Your task to perform on an android device: Go to network settings Image 0: 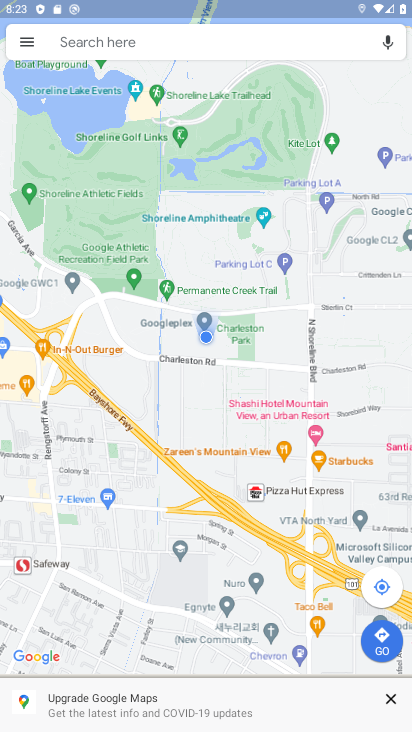
Step 0: press home button
Your task to perform on an android device: Go to network settings Image 1: 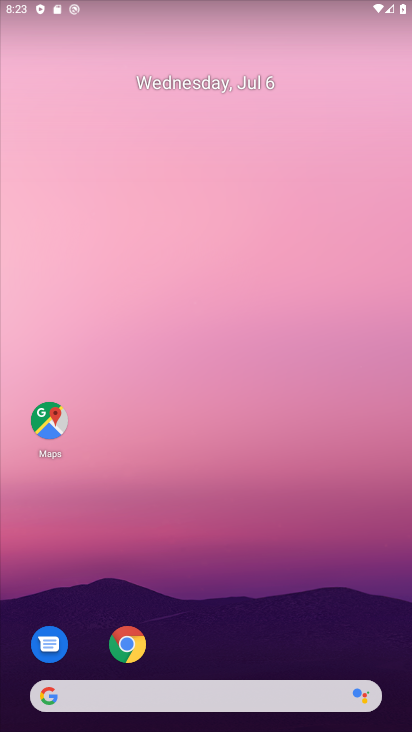
Step 1: drag from (211, 653) to (202, 169)
Your task to perform on an android device: Go to network settings Image 2: 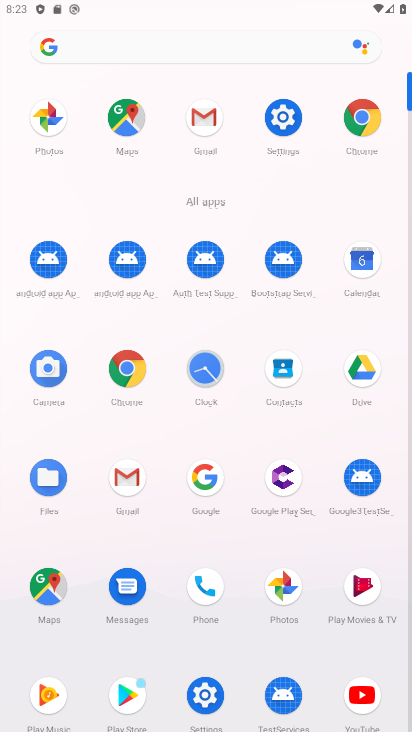
Step 2: click (261, 117)
Your task to perform on an android device: Go to network settings Image 3: 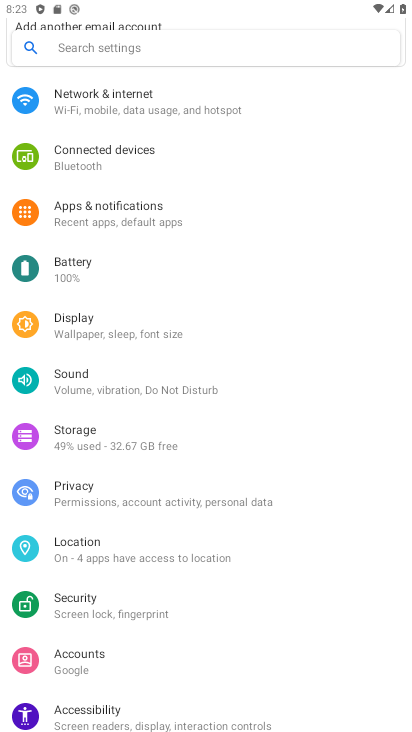
Step 3: click (162, 106)
Your task to perform on an android device: Go to network settings Image 4: 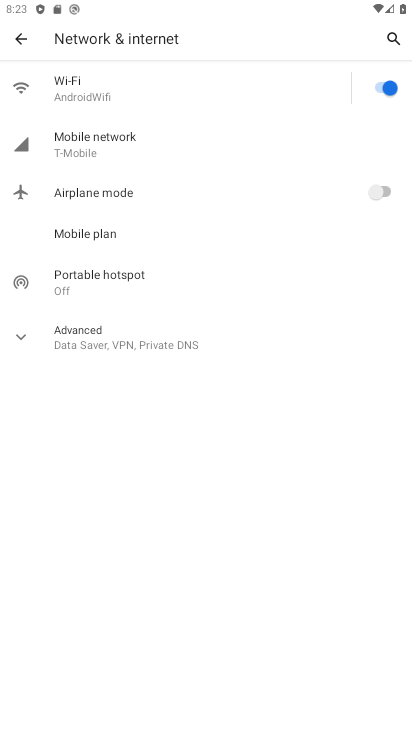
Step 4: task complete